Your task to perform on an android device: check android version Image 0: 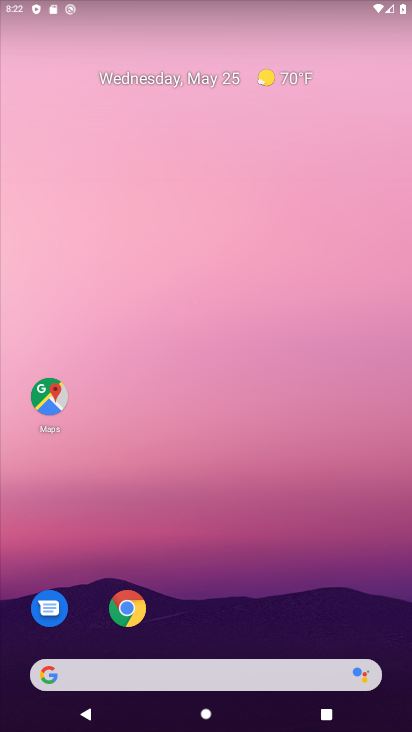
Step 0: drag from (220, 631) to (140, 51)
Your task to perform on an android device: check android version Image 1: 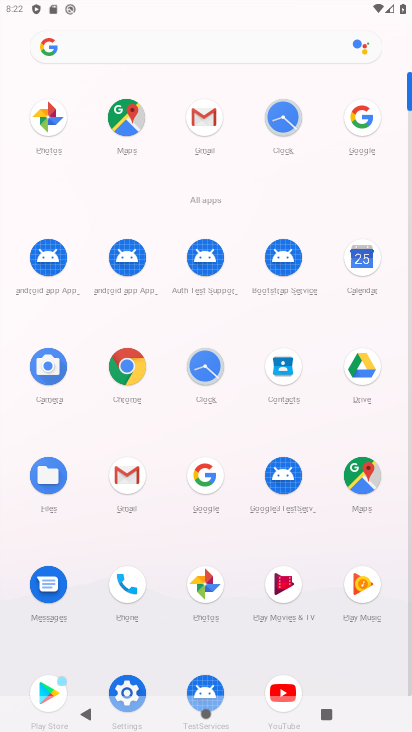
Step 1: click (126, 678)
Your task to perform on an android device: check android version Image 2: 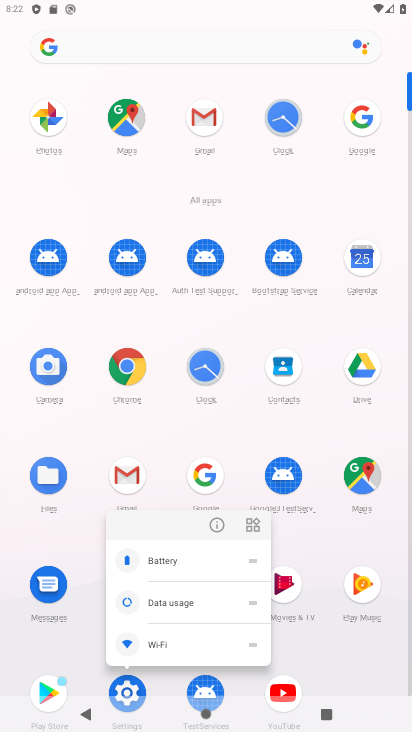
Step 2: click (126, 678)
Your task to perform on an android device: check android version Image 3: 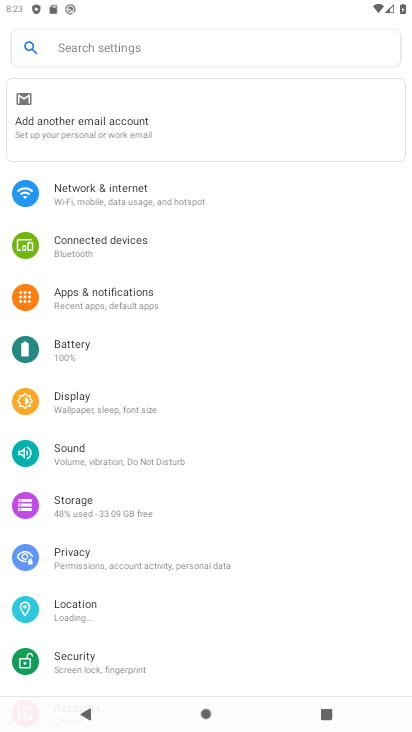
Step 3: drag from (195, 647) to (84, 216)
Your task to perform on an android device: check android version Image 4: 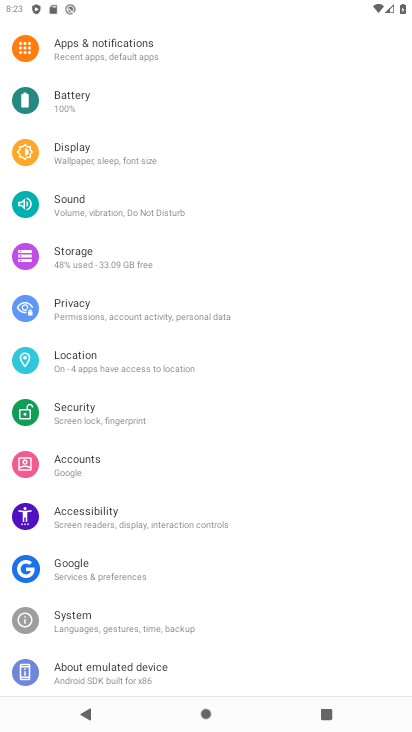
Step 4: click (118, 666)
Your task to perform on an android device: check android version Image 5: 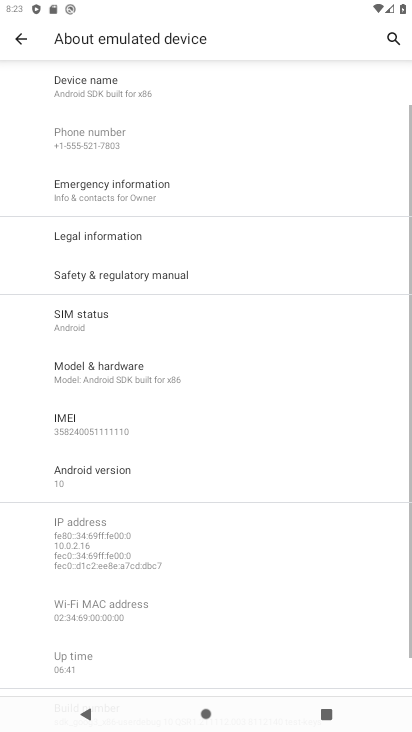
Step 5: click (103, 462)
Your task to perform on an android device: check android version Image 6: 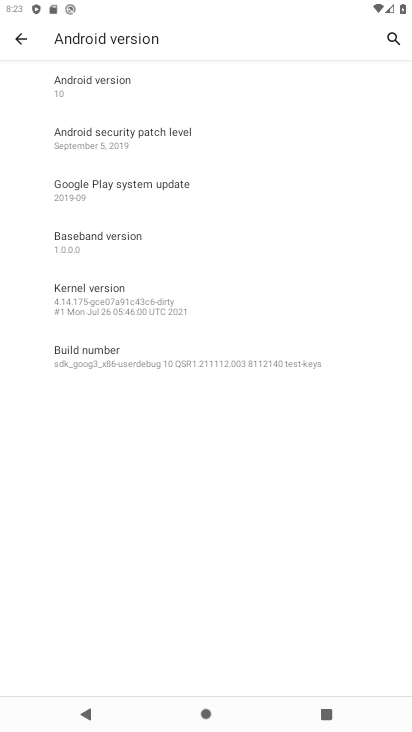
Step 6: task complete